Your task to perform on an android device: Search for a sofa on article.com Image 0: 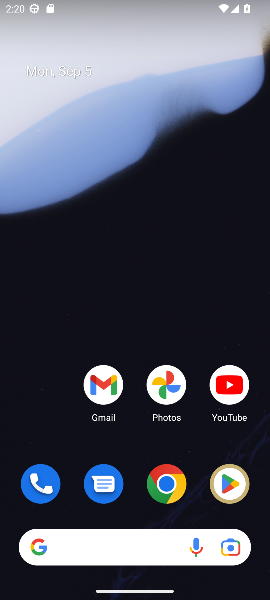
Step 0: click (167, 487)
Your task to perform on an android device: Search for a sofa on article.com Image 1: 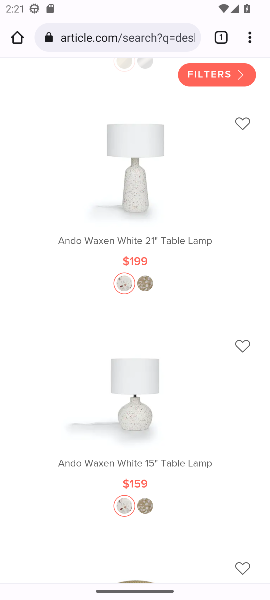
Step 1: drag from (47, 127) to (12, 484)
Your task to perform on an android device: Search for a sofa on article.com Image 2: 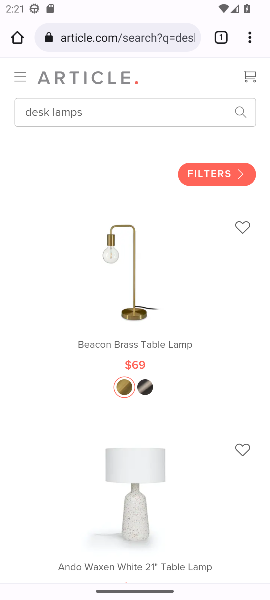
Step 2: click (237, 109)
Your task to perform on an android device: Search for a sofa on article.com Image 3: 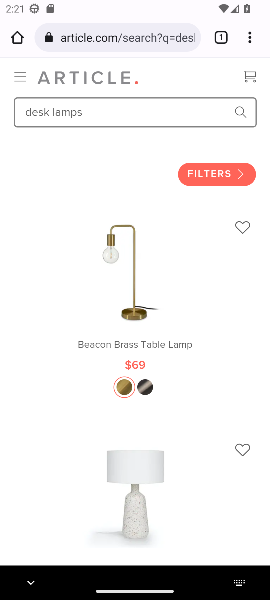
Step 3: click (157, 111)
Your task to perform on an android device: Search for a sofa on article.com Image 4: 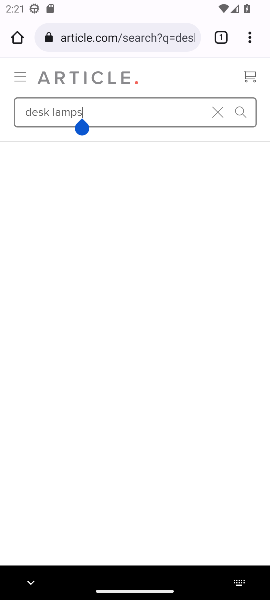
Step 4: click (221, 110)
Your task to perform on an android device: Search for a sofa on article.com Image 5: 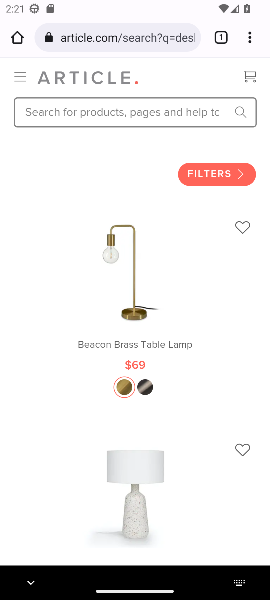
Step 5: click (164, 110)
Your task to perform on an android device: Search for a sofa on article.com Image 6: 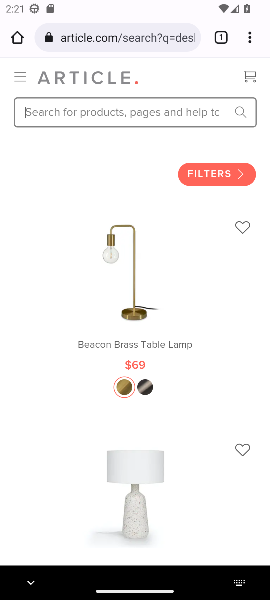
Step 6: type "sofa"
Your task to perform on an android device: Search for a sofa on article.com Image 7: 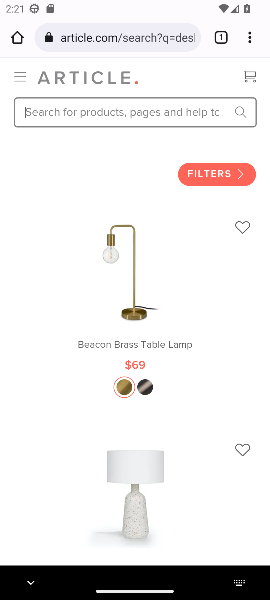
Step 7: press enter
Your task to perform on an android device: Search for a sofa on article.com Image 8: 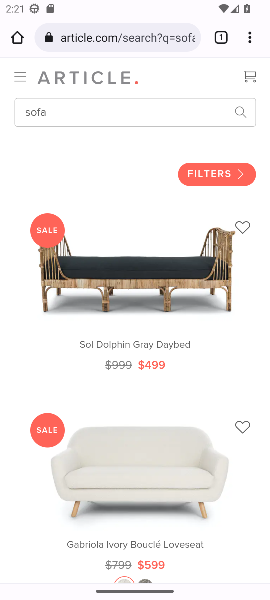
Step 8: task complete